Your task to perform on an android device: Is it going to rain this weekend? Image 0: 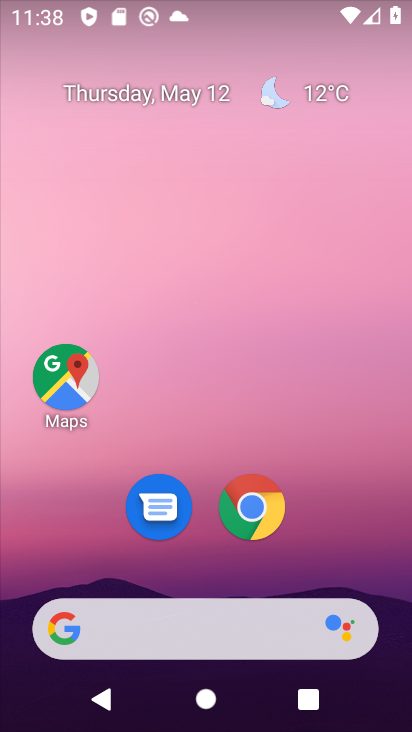
Step 0: click (292, 93)
Your task to perform on an android device: Is it going to rain this weekend? Image 1: 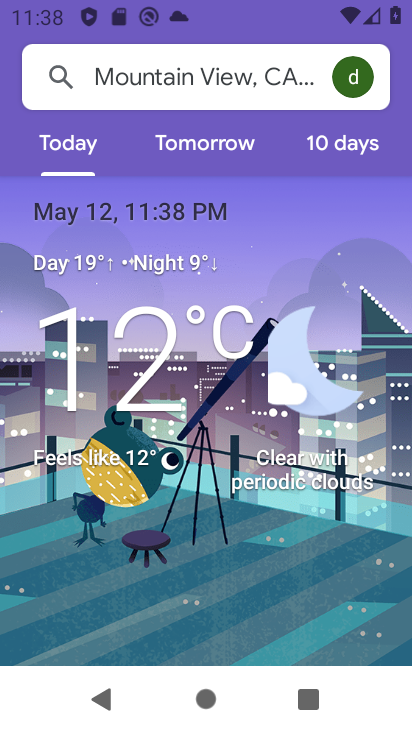
Step 1: click (338, 150)
Your task to perform on an android device: Is it going to rain this weekend? Image 2: 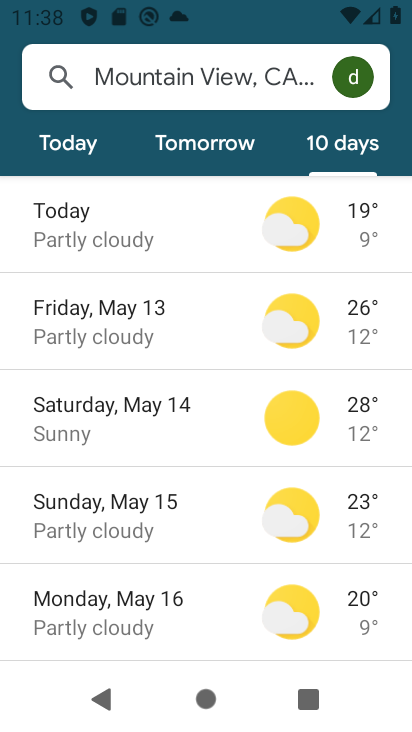
Step 2: task complete